Your task to perform on an android device: What's the weather going to be this weekend? Image 0: 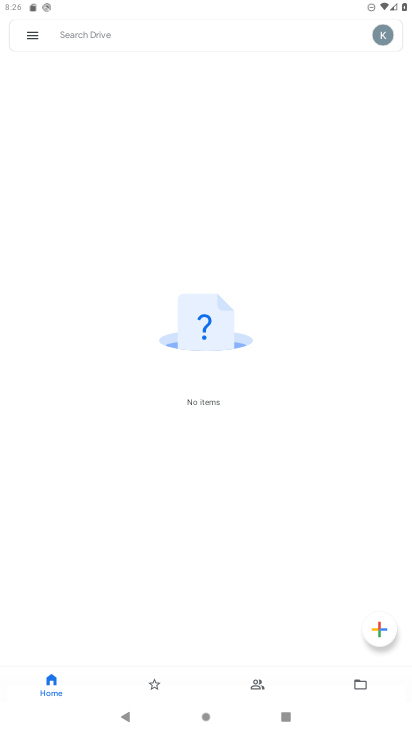
Step 0: press home button
Your task to perform on an android device: What's the weather going to be this weekend? Image 1: 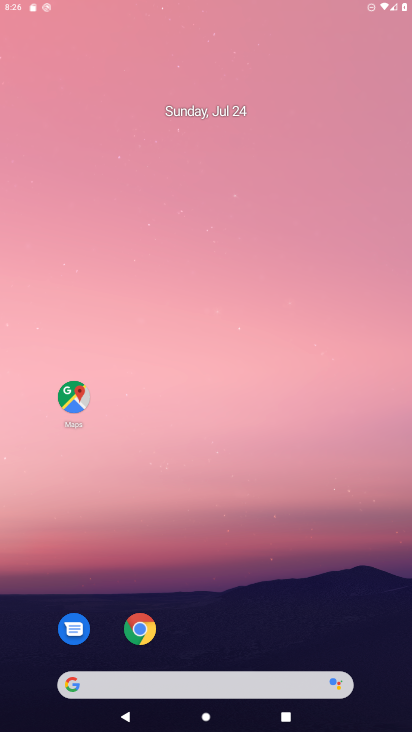
Step 1: drag from (389, 693) to (253, 13)
Your task to perform on an android device: What's the weather going to be this weekend? Image 2: 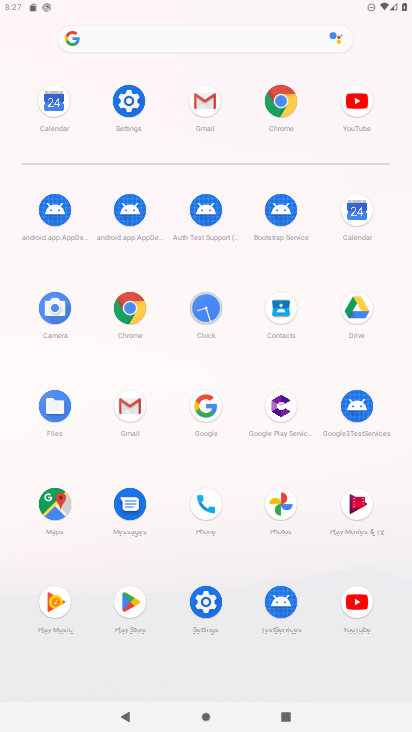
Step 2: click (203, 396)
Your task to perform on an android device: What's the weather going to be this weekend? Image 3: 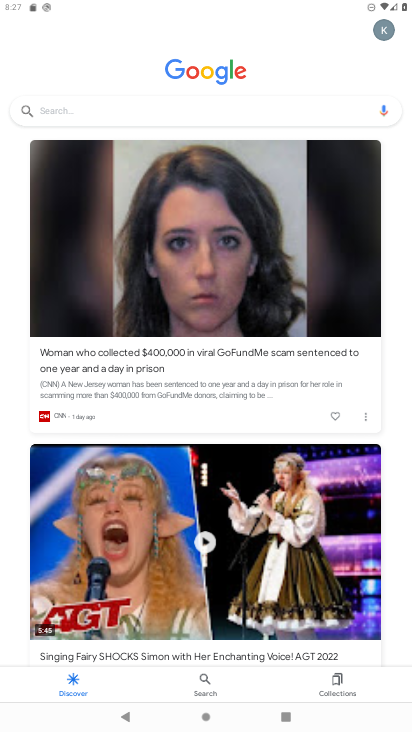
Step 3: type "What's the weather going to be this weekend?"
Your task to perform on an android device: What's the weather going to be this weekend? Image 4: 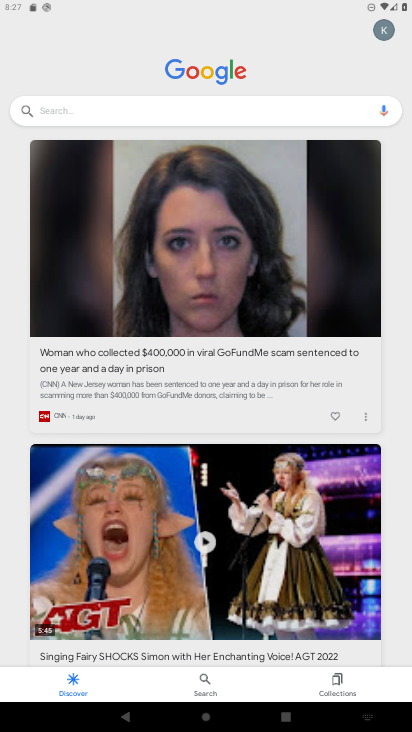
Step 4: click (102, 109)
Your task to perform on an android device: What's the weather going to be this weekend? Image 5: 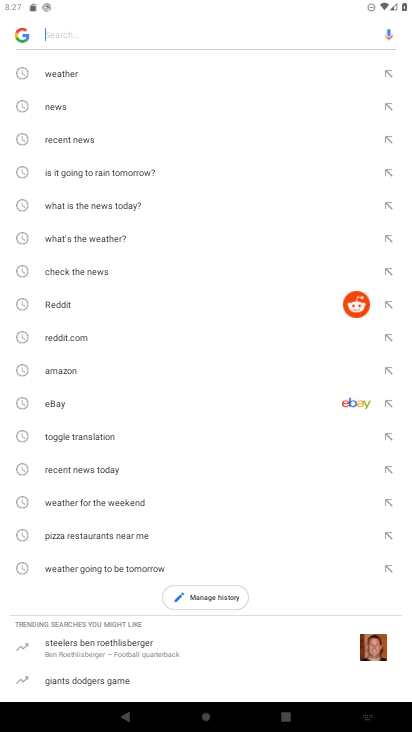
Step 5: type "What's the weather going to be this weekend?"
Your task to perform on an android device: What's the weather going to be this weekend? Image 6: 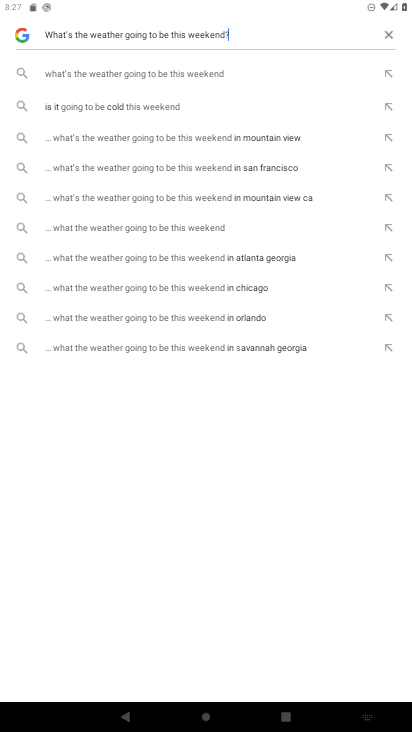
Step 6: click (147, 74)
Your task to perform on an android device: What's the weather going to be this weekend? Image 7: 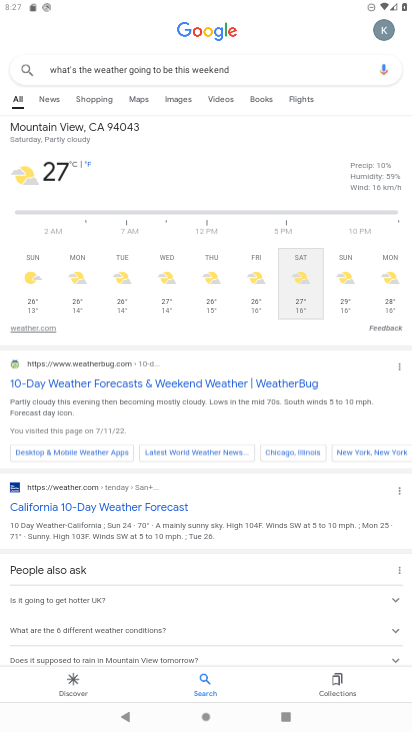
Step 7: task complete